Your task to perform on an android device: toggle show notifications on the lock screen Image 0: 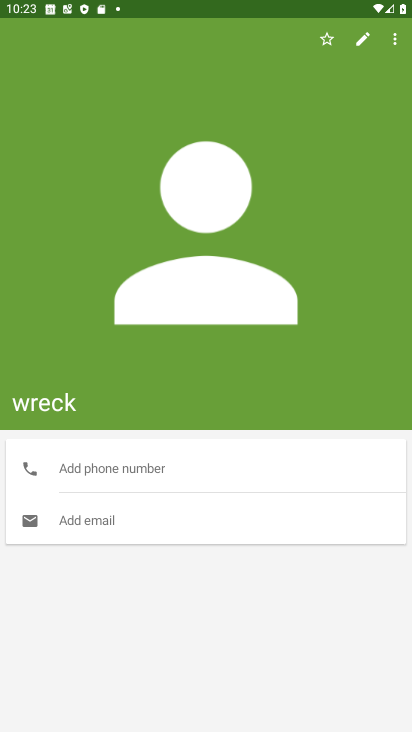
Step 0: press home button
Your task to perform on an android device: toggle show notifications on the lock screen Image 1: 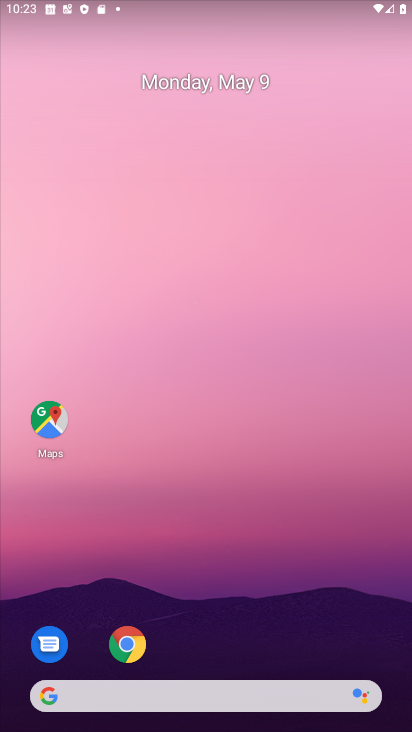
Step 1: drag from (252, 605) to (343, 18)
Your task to perform on an android device: toggle show notifications on the lock screen Image 2: 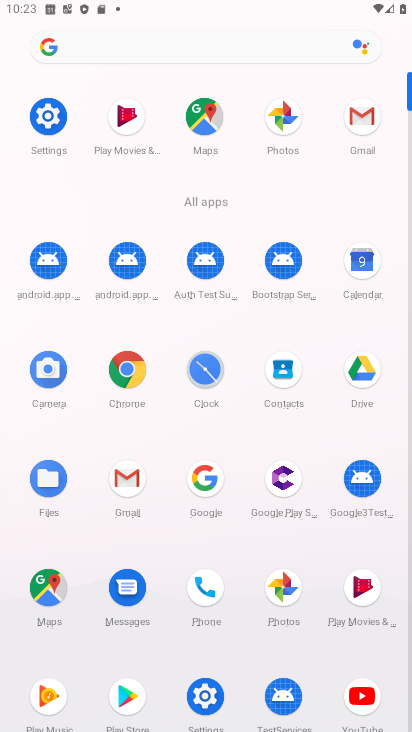
Step 2: click (63, 116)
Your task to perform on an android device: toggle show notifications on the lock screen Image 3: 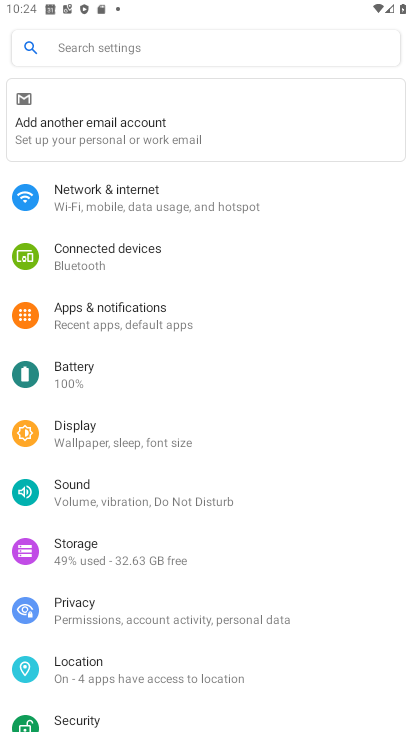
Step 3: click (156, 313)
Your task to perform on an android device: toggle show notifications on the lock screen Image 4: 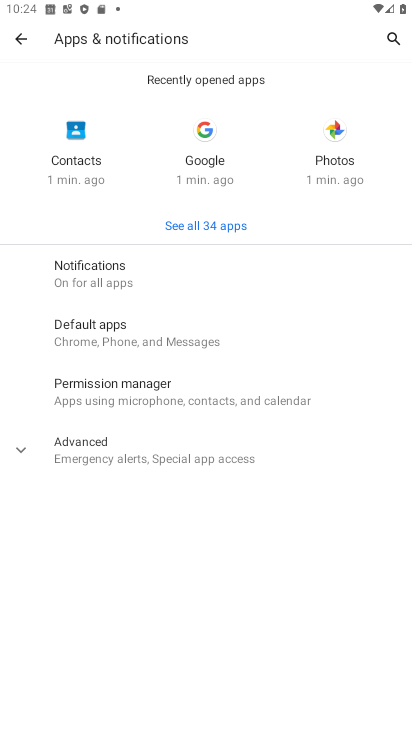
Step 4: click (140, 285)
Your task to perform on an android device: toggle show notifications on the lock screen Image 5: 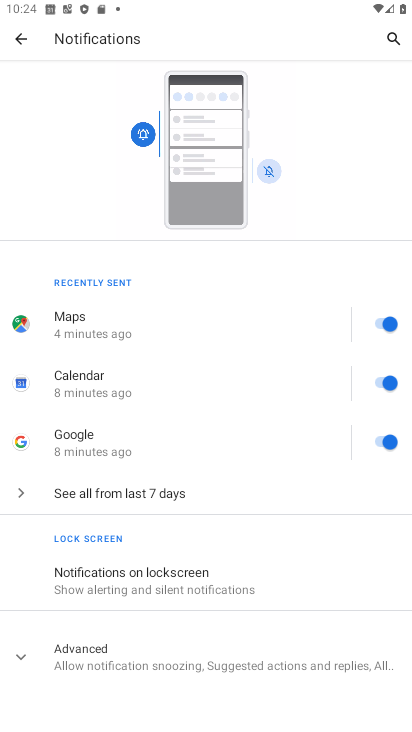
Step 5: click (162, 574)
Your task to perform on an android device: toggle show notifications on the lock screen Image 6: 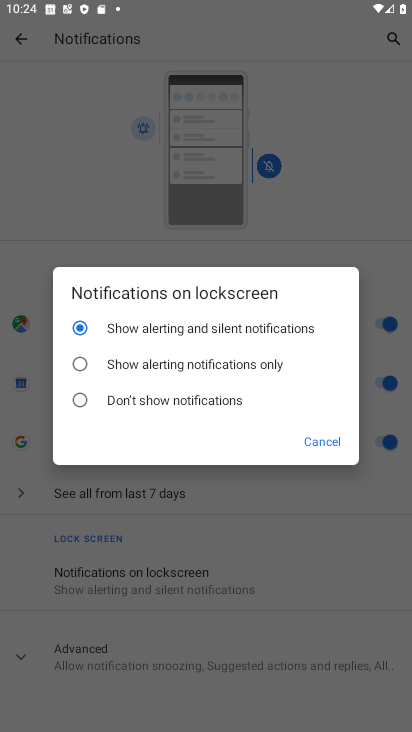
Step 6: click (133, 412)
Your task to perform on an android device: toggle show notifications on the lock screen Image 7: 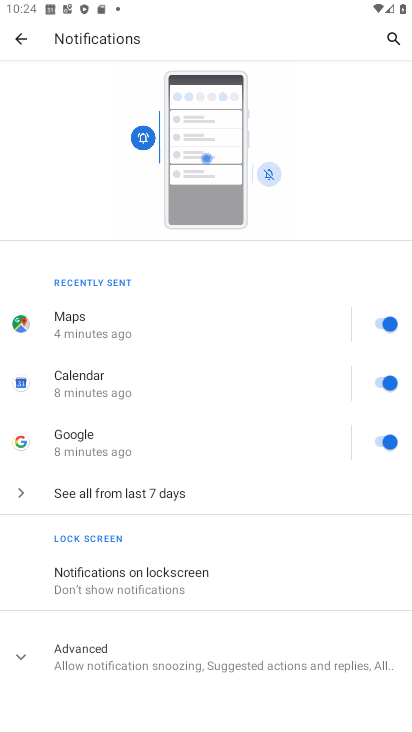
Step 7: task complete